Your task to perform on an android device: turn off notifications in google photos Image 0: 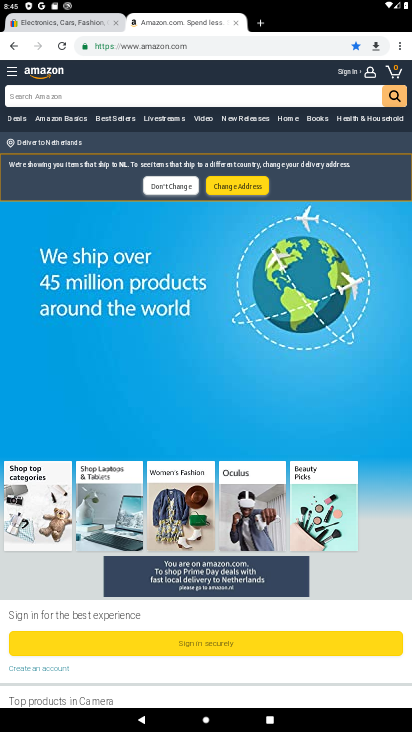
Step 0: press home button
Your task to perform on an android device: turn off notifications in google photos Image 1: 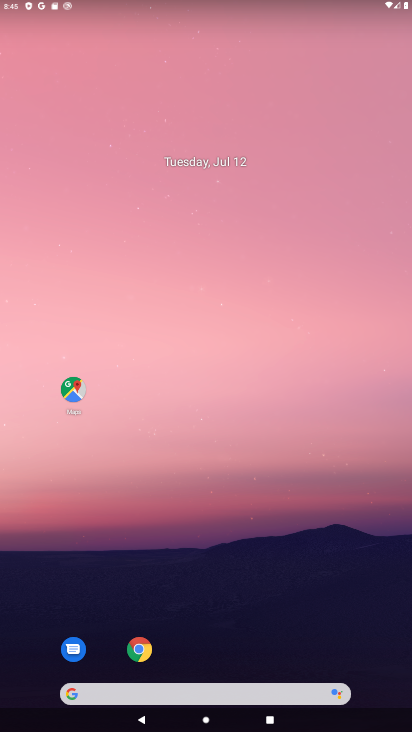
Step 1: drag from (273, 645) to (239, 25)
Your task to perform on an android device: turn off notifications in google photos Image 2: 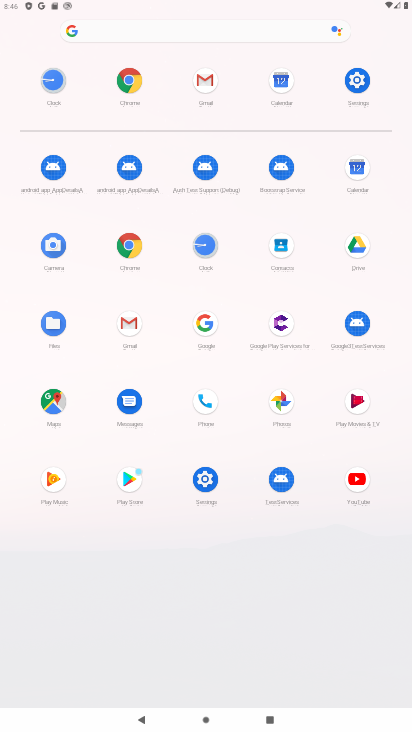
Step 2: click (284, 408)
Your task to perform on an android device: turn off notifications in google photos Image 3: 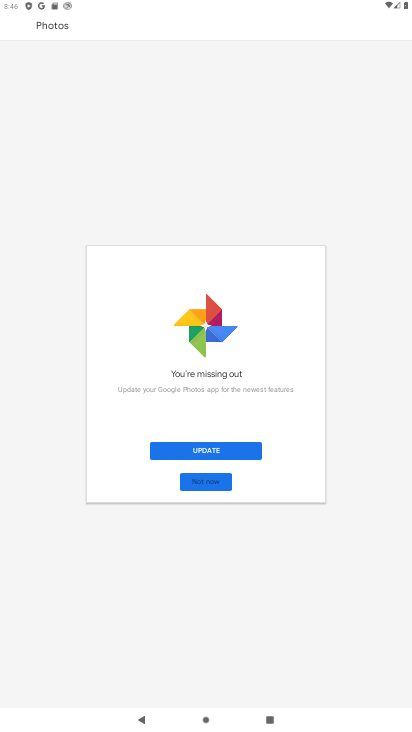
Step 3: click (226, 444)
Your task to perform on an android device: turn off notifications in google photos Image 4: 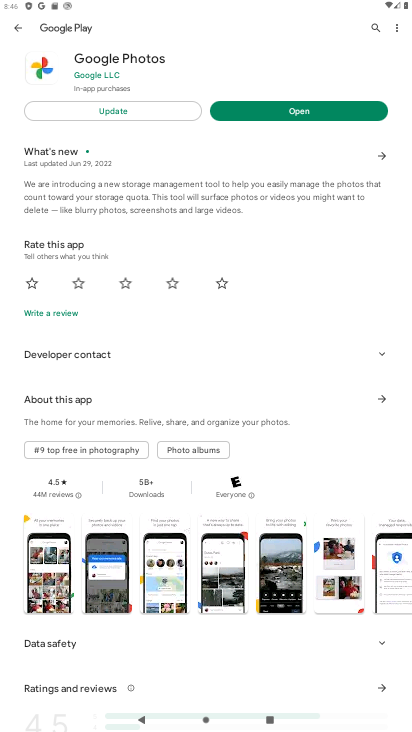
Step 4: click (166, 113)
Your task to perform on an android device: turn off notifications in google photos Image 5: 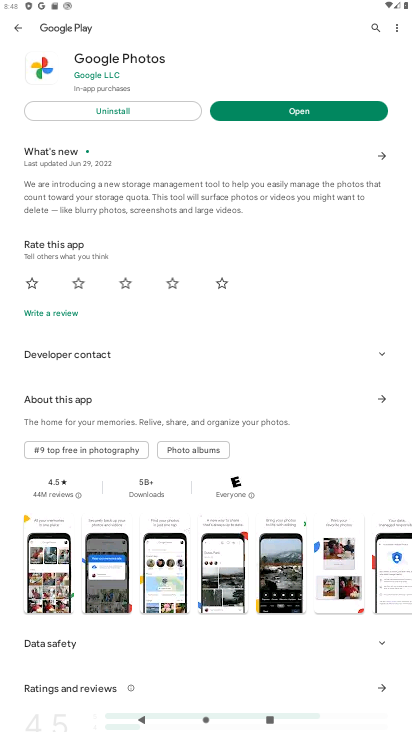
Step 5: click (267, 120)
Your task to perform on an android device: turn off notifications in google photos Image 6: 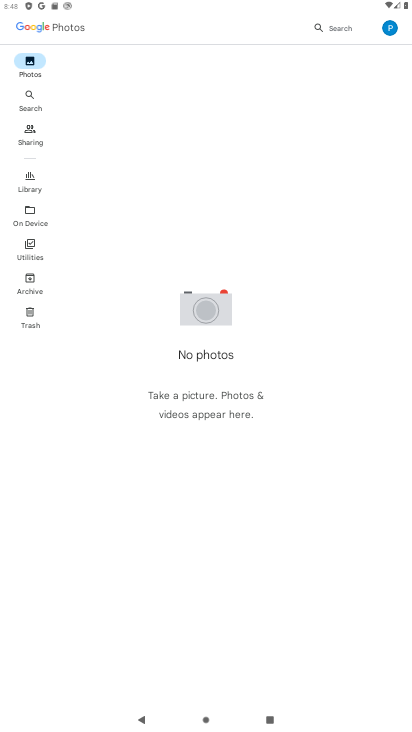
Step 6: click (398, 35)
Your task to perform on an android device: turn off notifications in google photos Image 7: 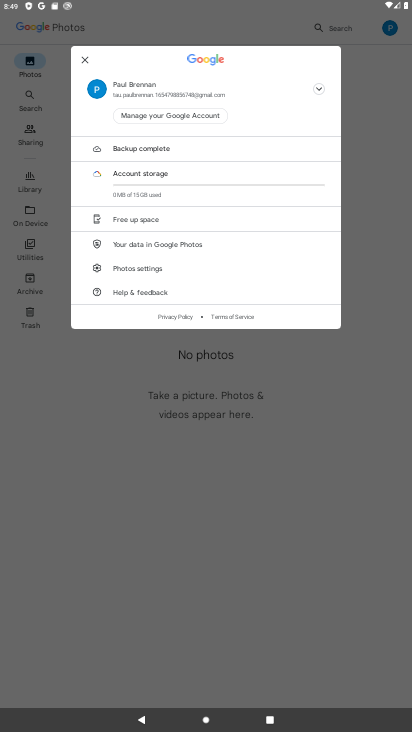
Step 7: task complete